Your task to perform on an android device: Open the map Image 0: 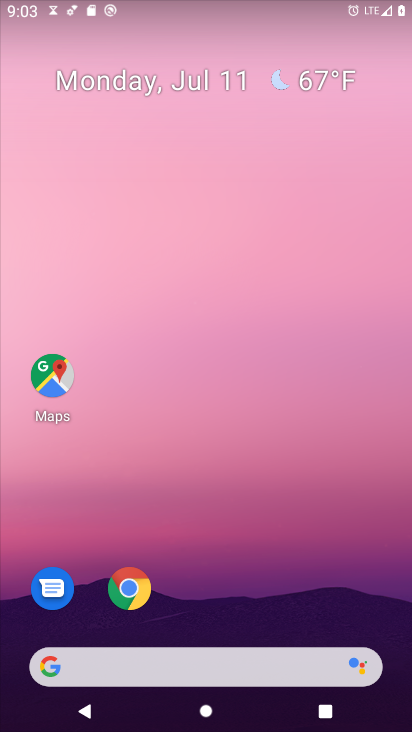
Step 0: click (57, 368)
Your task to perform on an android device: Open the map Image 1: 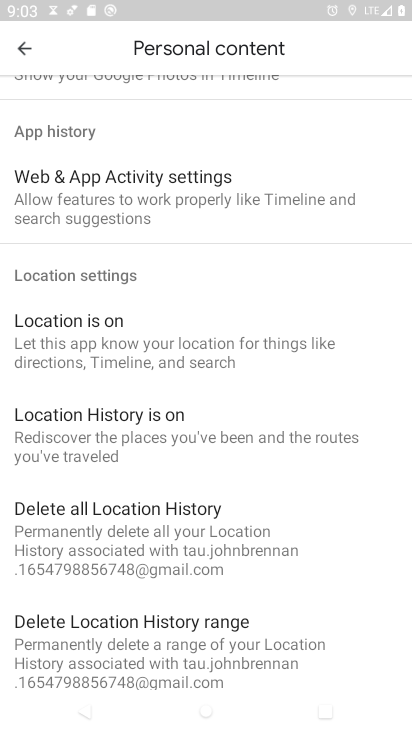
Step 1: click (34, 42)
Your task to perform on an android device: Open the map Image 2: 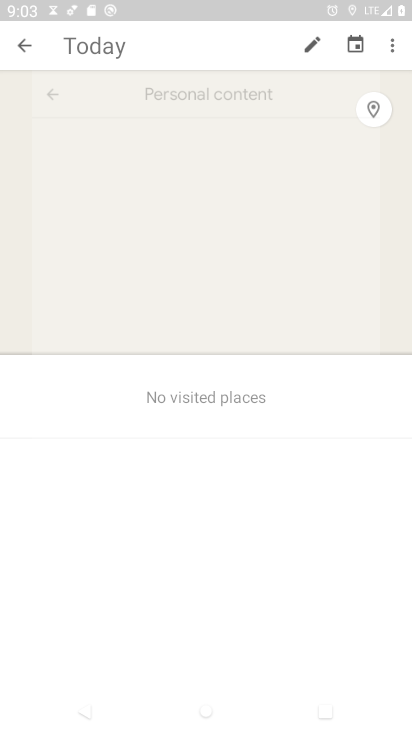
Step 2: click (34, 42)
Your task to perform on an android device: Open the map Image 3: 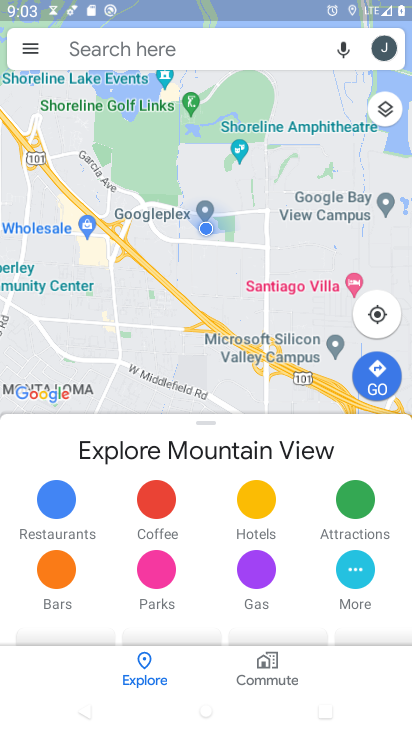
Step 3: task complete